Your task to perform on an android device: set an alarm Image 0: 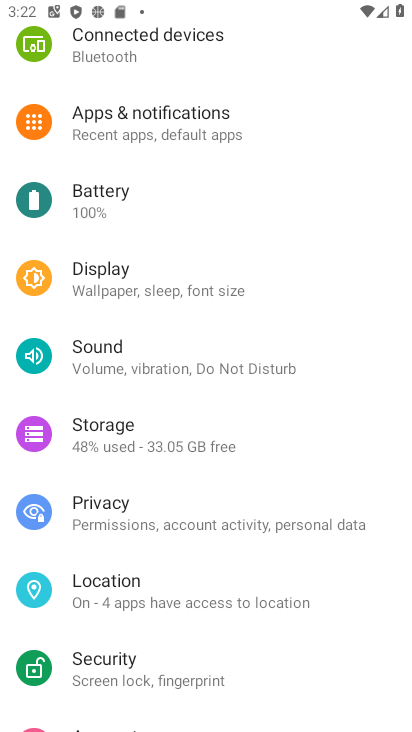
Step 0: press home button
Your task to perform on an android device: set an alarm Image 1: 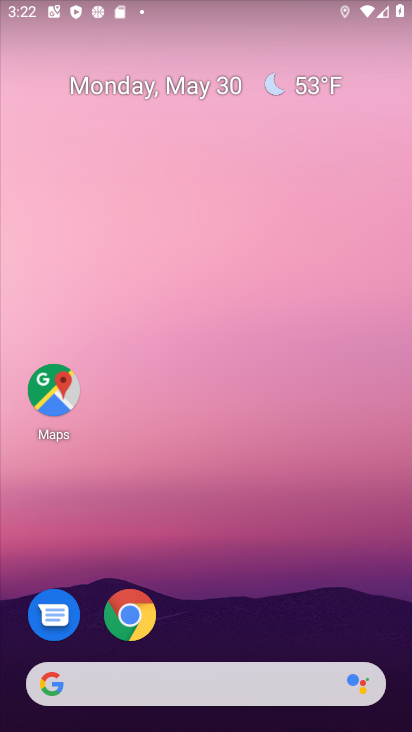
Step 1: drag from (280, 600) to (279, 240)
Your task to perform on an android device: set an alarm Image 2: 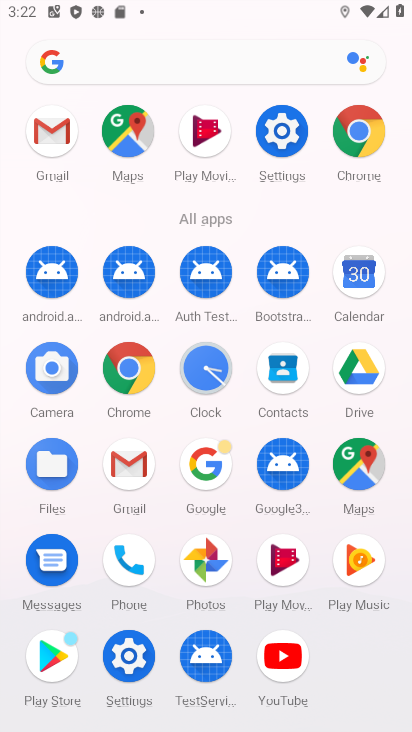
Step 2: click (195, 386)
Your task to perform on an android device: set an alarm Image 3: 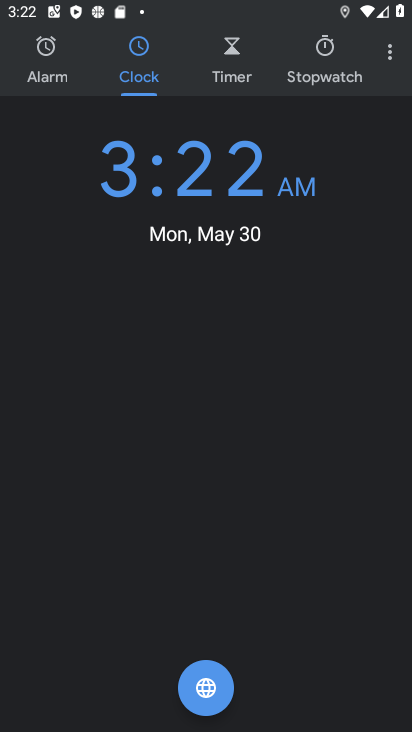
Step 3: click (62, 69)
Your task to perform on an android device: set an alarm Image 4: 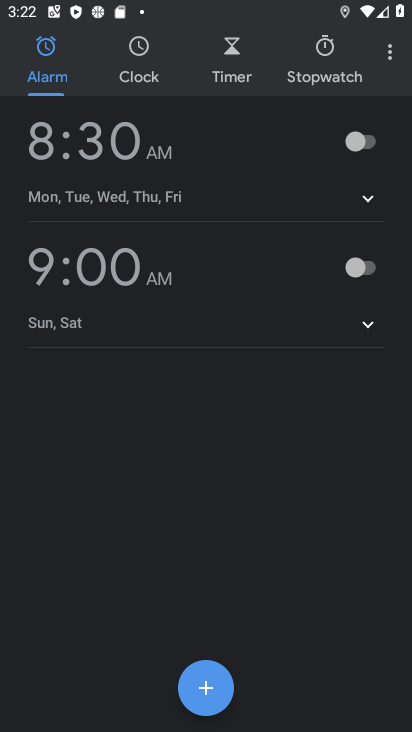
Step 4: click (361, 280)
Your task to perform on an android device: set an alarm Image 5: 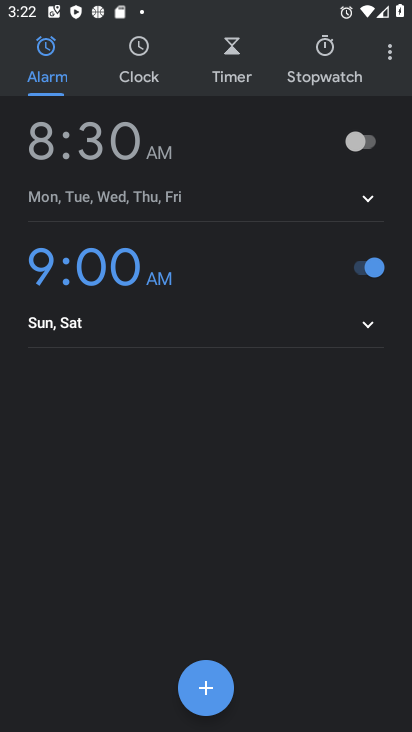
Step 5: task complete